Your task to perform on an android device: Do I have any events this weekend? Image 0: 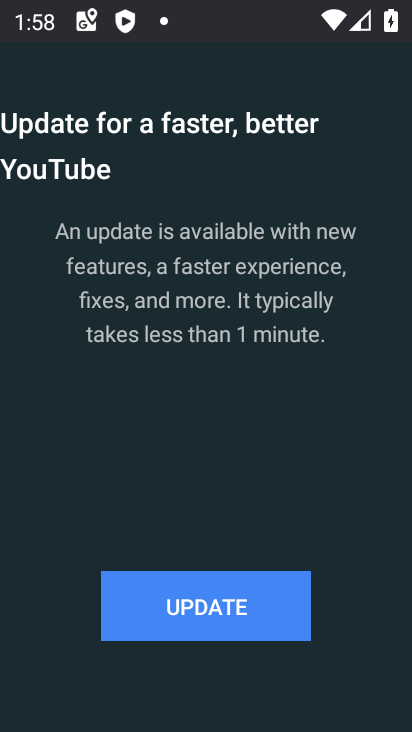
Step 0: press back button
Your task to perform on an android device: Do I have any events this weekend? Image 1: 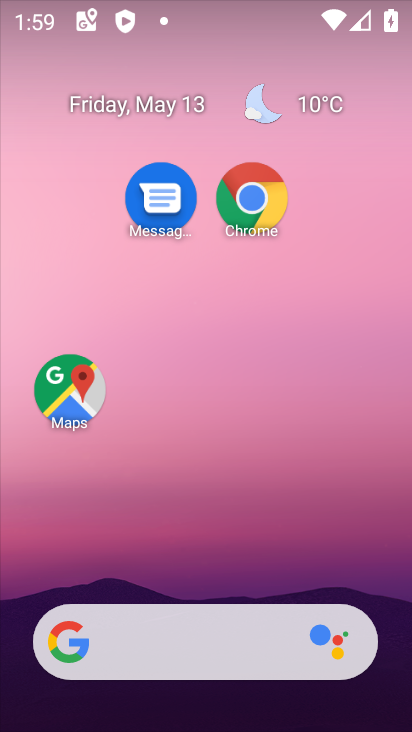
Step 1: drag from (233, 595) to (291, 71)
Your task to perform on an android device: Do I have any events this weekend? Image 2: 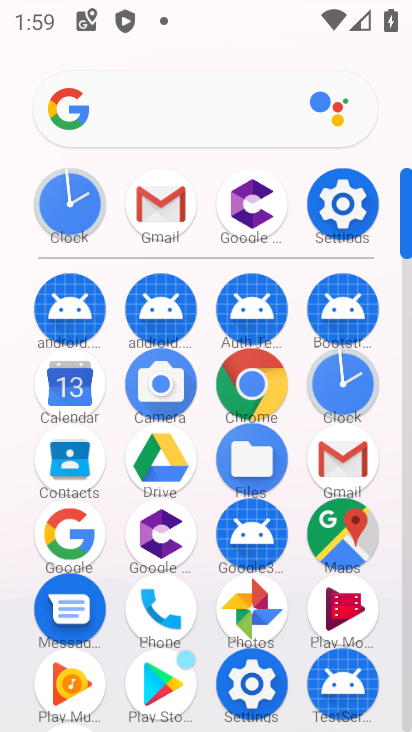
Step 2: click (60, 400)
Your task to perform on an android device: Do I have any events this weekend? Image 3: 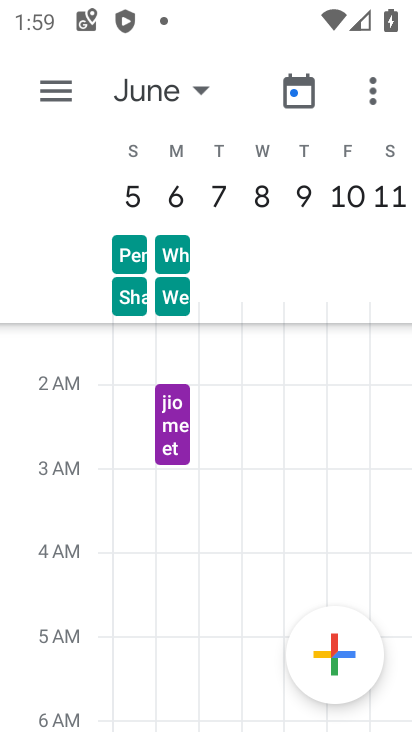
Step 3: click (297, 88)
Your task to perform on an android device: Do I have any events this weekend? Image 4: 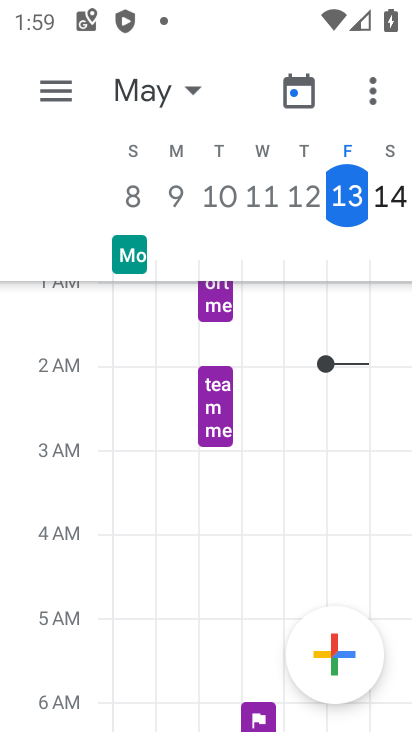
Step 4: task complete